Your task to perform on an android device: turn on improve location accuracy Image 0: 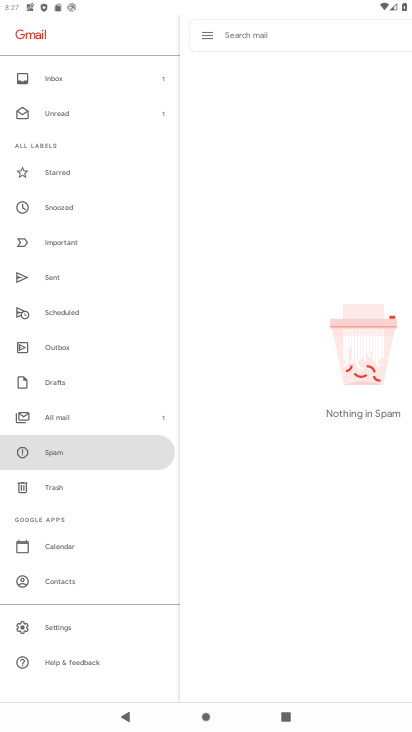
Step 0: press home button
Your task to perform on an android device: turn on improve location accuracy Image 1: 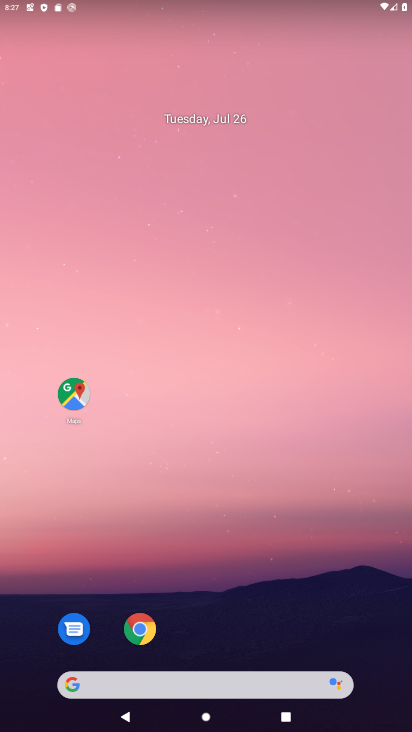
Step 1: drag from (216, 650) to (232, 132)
Your task to perform on an android device: turn on improve location accuracy Image 2: 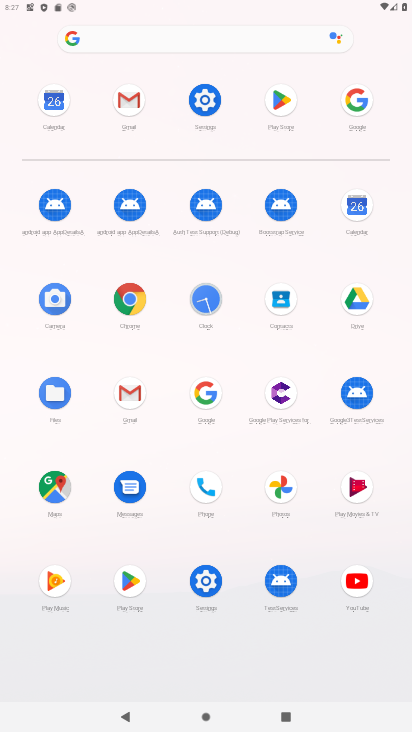
Step 2: click (203, 98)
Your task to perform on an android device: turn on improve location accuracy Image 3: 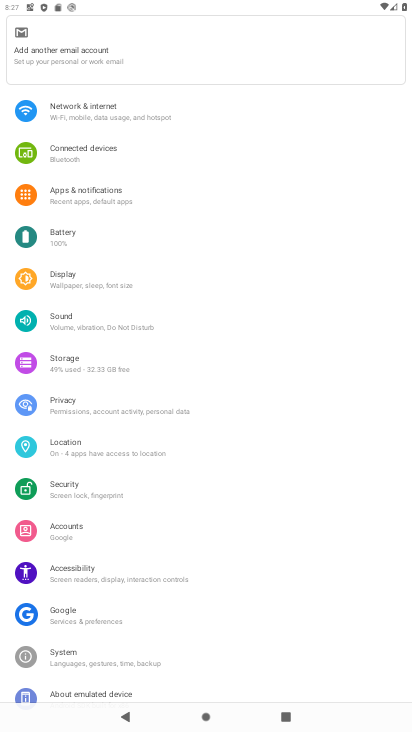
Step 3: click (85, 441)
Your task to perform on an android device: turn on improve location accuracy Image 4: 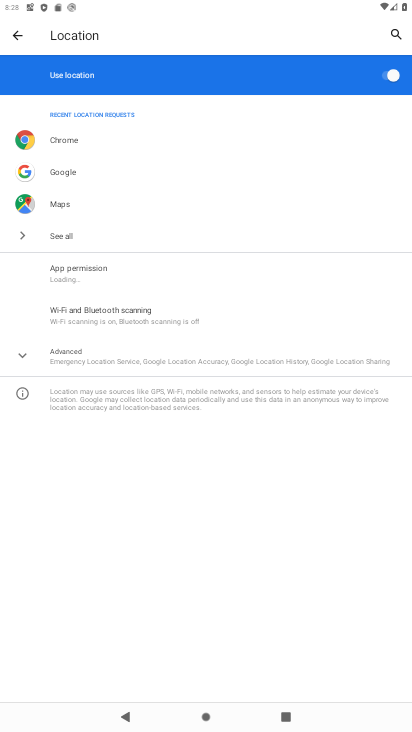
Step 4: click (21, 353)
Your task to perform on an android device: turn on improve location accuracy Image 5: 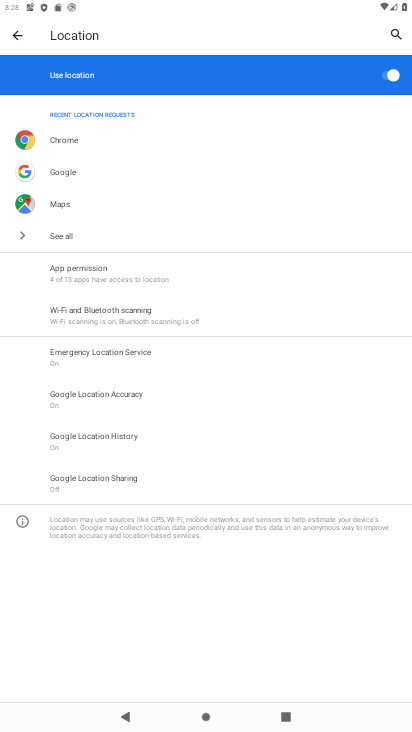
Step 5: click (37, 400)
Your task to perform on an android device: turn on improve location accuracy Image 6: 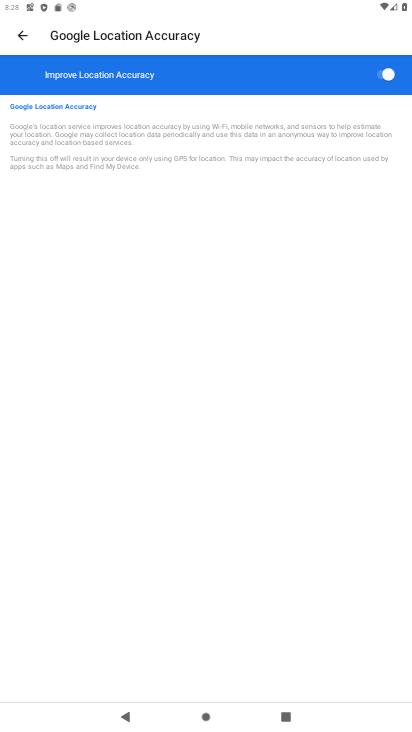
Step 6: task complete